Your task to perform on an android device: turn notification dots on Image 0: 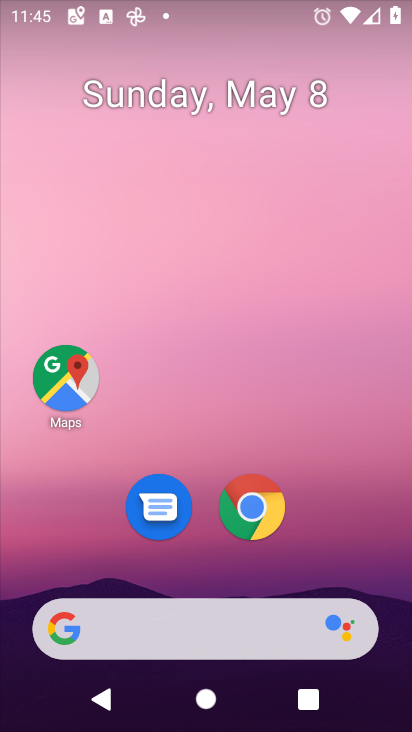
Step 0: drag from (267, 586) to (275, 56)
Your task to perform on an android device: turn notification dots on Image 1: 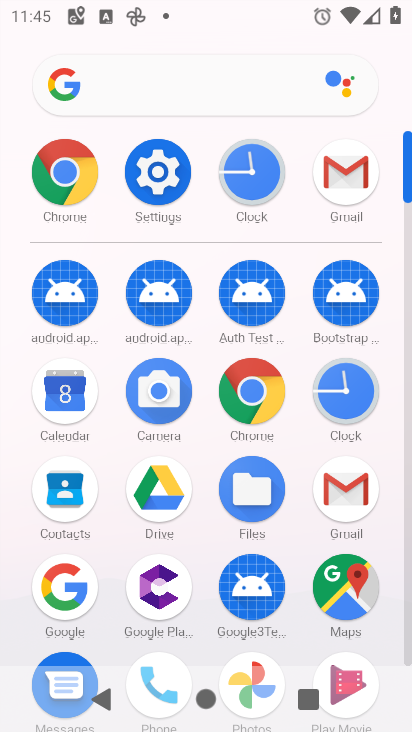
Step 1: click (177, 196)
Your task to perform on an android device: turn notification dots on Image 2: 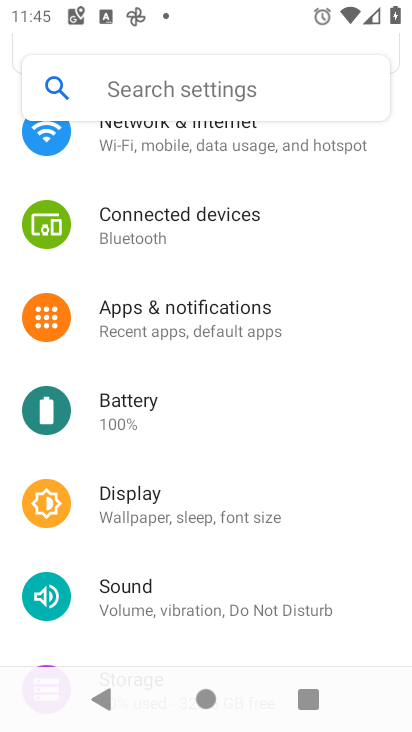
Step 2: click (255, 315)
Your task to perform on an android device: turn notification dots on Image 3: 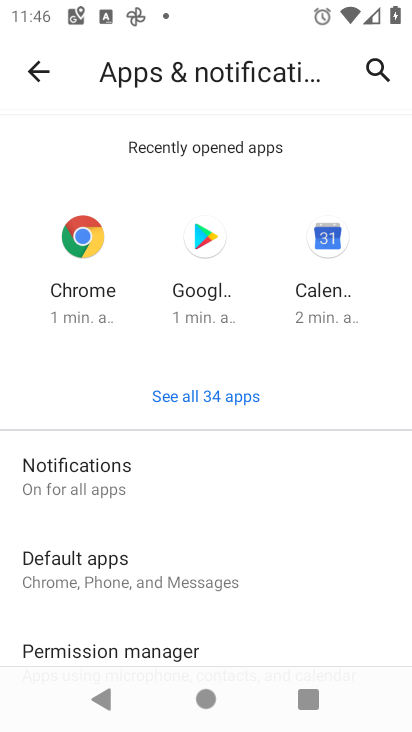
Step 3: drag from (261, 569) to (208, 21)
Your task to perform on an android device: turn notification dots on Image 4: 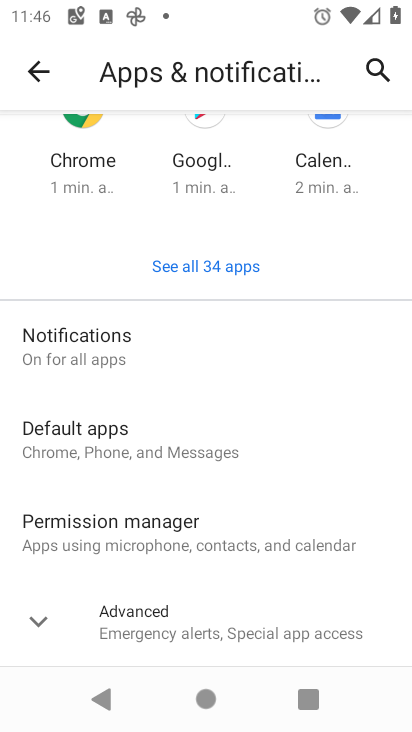
Step 4: click (255, 628)
Your task to perform on an android device: turn notification dots on Image 5: 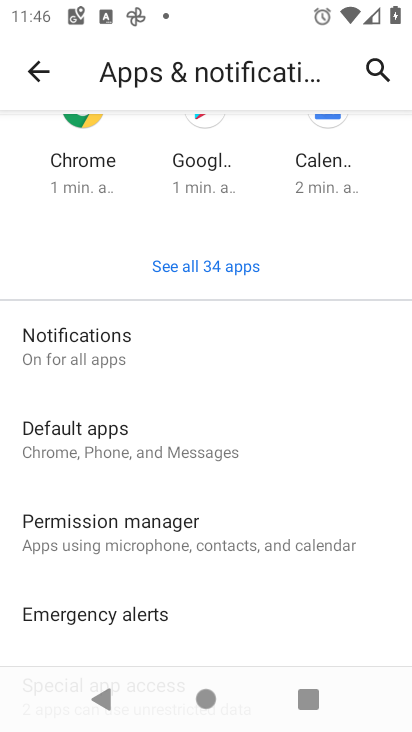
Step 5: drag from (256, 587) to (282, 143)
Your task to perform on an android device: turn notification dots on Image 6: 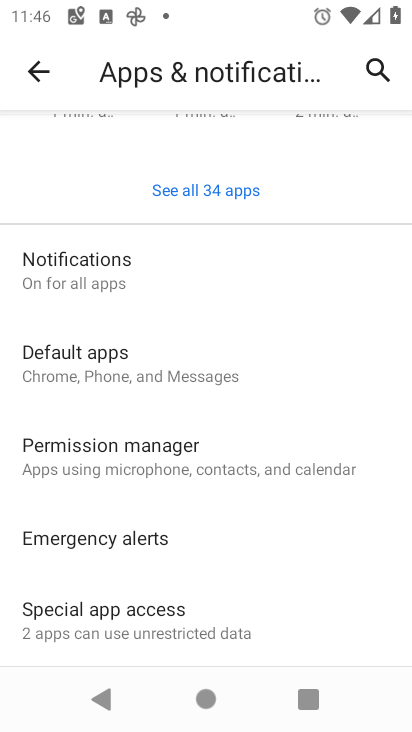
Step 6: click (121, 261)
Your task to perform on an android device: turn notification dots on Image 7: 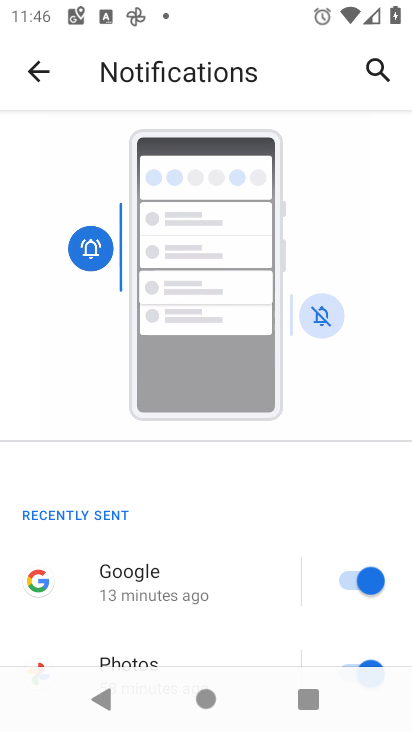
Step 7: drag from (266, 566) to (303, 196)
Your task to perform on an android device: turn notification dots on Image 8: 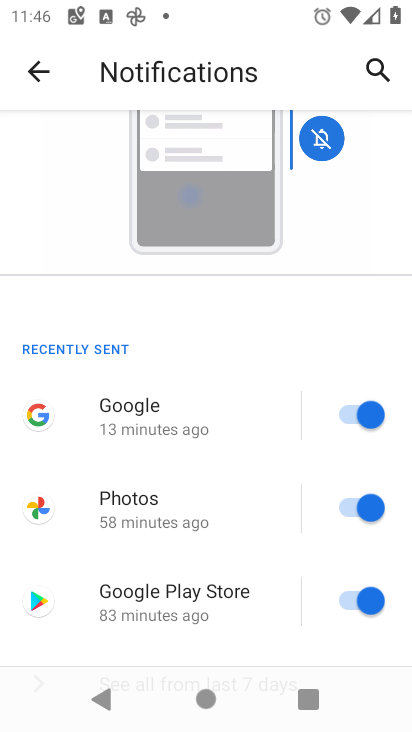
Step 8: drag from (219, 588) to (224, 237)
Your task to perform on an android device: turn notification dots on Image 9: 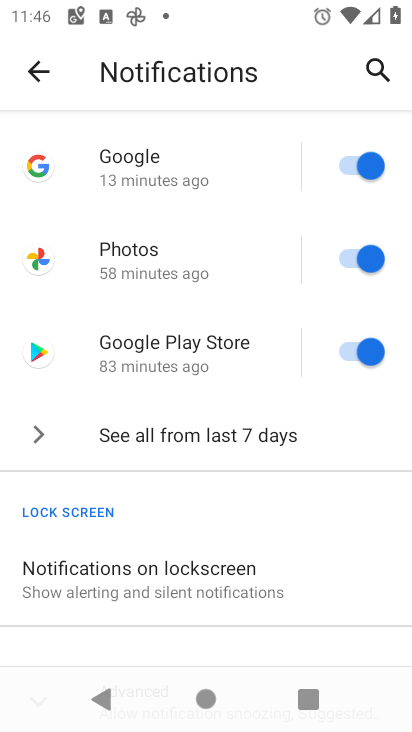
Step 9: drag from (260, 463) to (236, 26)
Your task to perform on an android device: turn notification dots on Image 10: 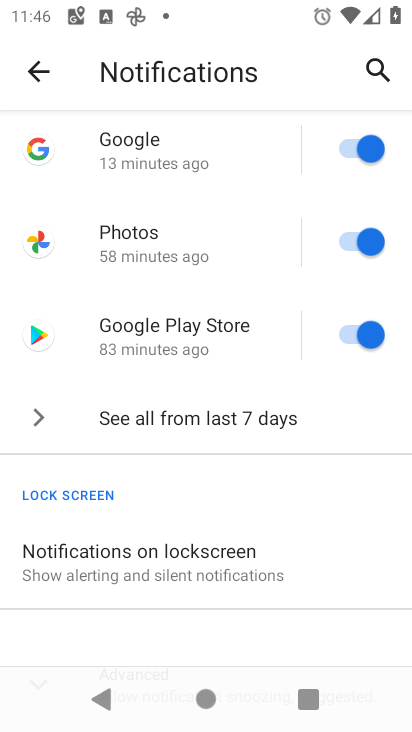
Step 10: click (200, 542)
Your task to perform on an android device: turn notification dots on Image 11: 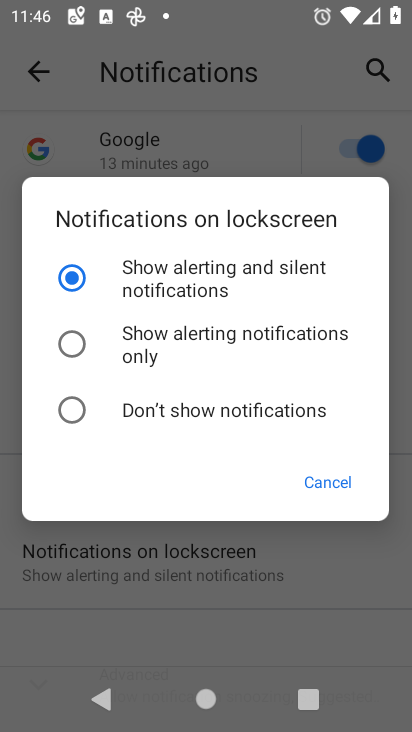
Step 11: click (341, 485)
Your task to perform on an android device: turn notification dots on Image 12: 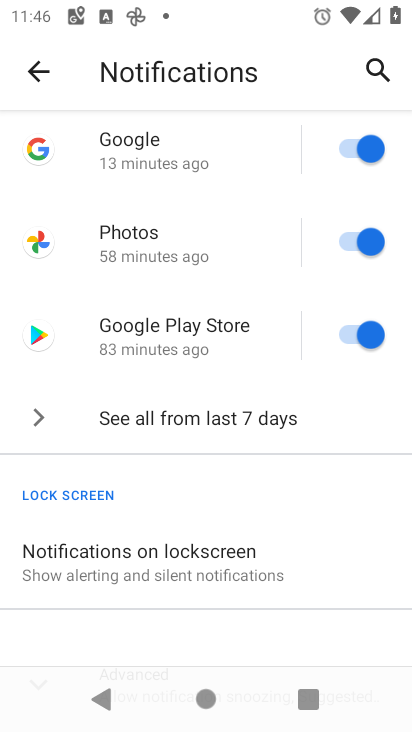
Step 12: drag from (311, 573) to (292, 30)
Your task to perform on an android device: turn notification dots on Image 13: 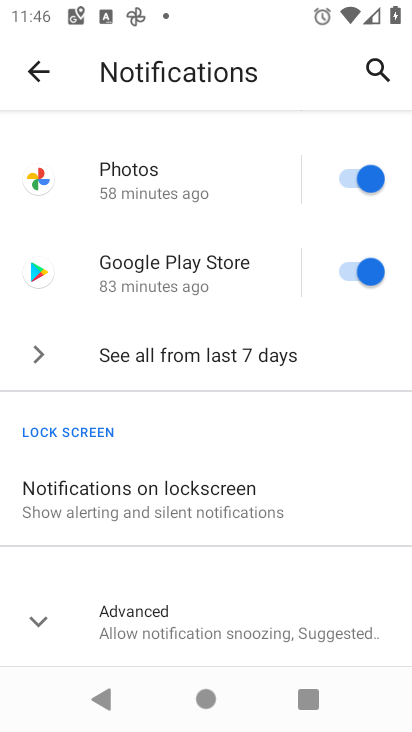
Step 13: click (274, 617)
Your task to perform on an android device: turn notification dots on Image 14: 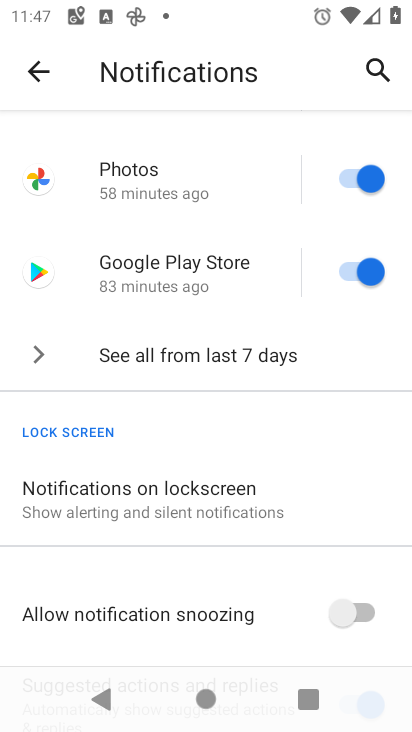
Step 14: drag from (298, 635) to (205, 8)
Your task to perform on an android device: turn notification dots on Image 15: 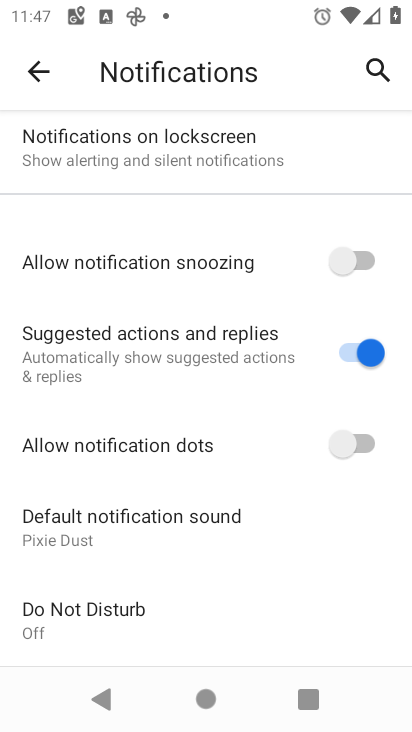
Step 15: drag from (246, 641) to (229, 17)
Your task to perform on an android device: turn notification dots on Image 16: 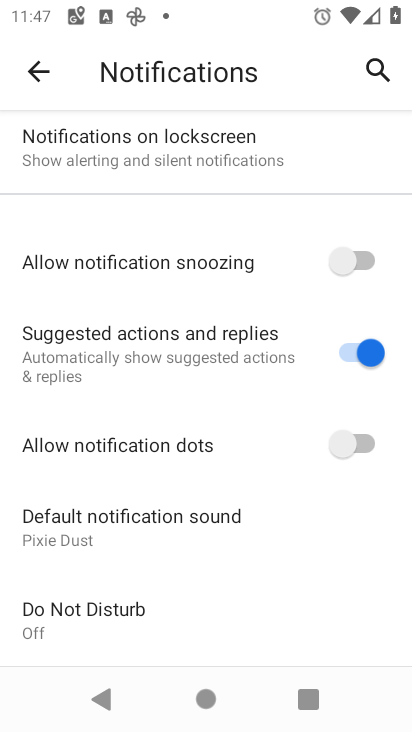
Step 16: click (358, 447)
Your task to perform on an android device: turn notification dots on Image 17: 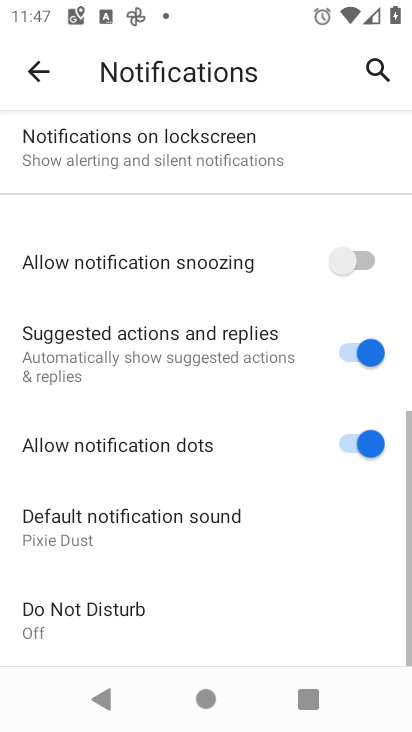
Step 17: task complete